Your task to perform on an android device: turn notification dots on Image 0: 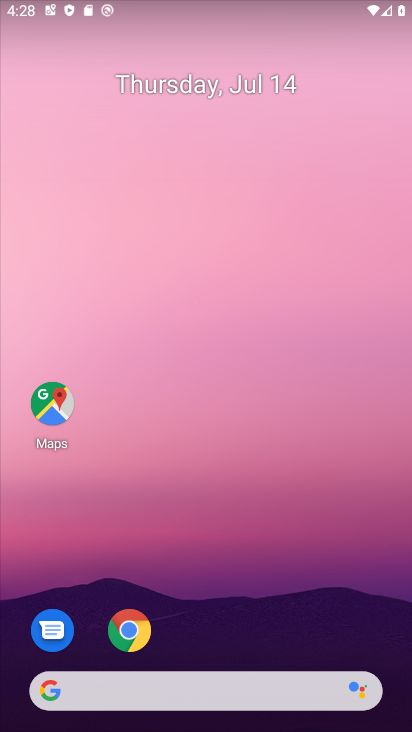
Step 0: drag from (217, 313) to (325, 35)
Your task to perform on an android device: turn notification dots on Image 1: 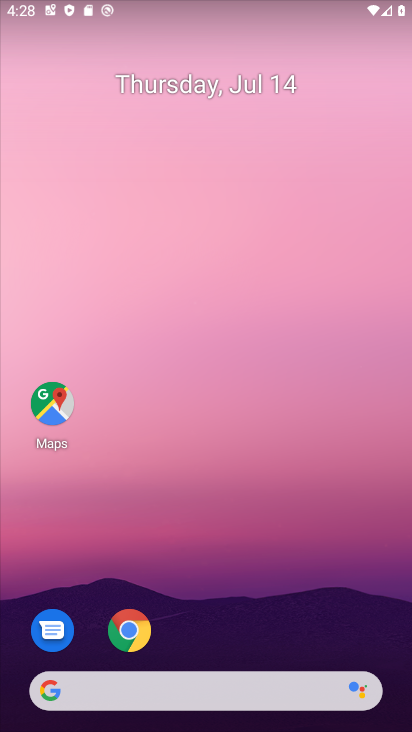
Step 1: drag from (211, 599) to (206, 539)
Your task to perform on an android device: turn notification dots on Image 2: 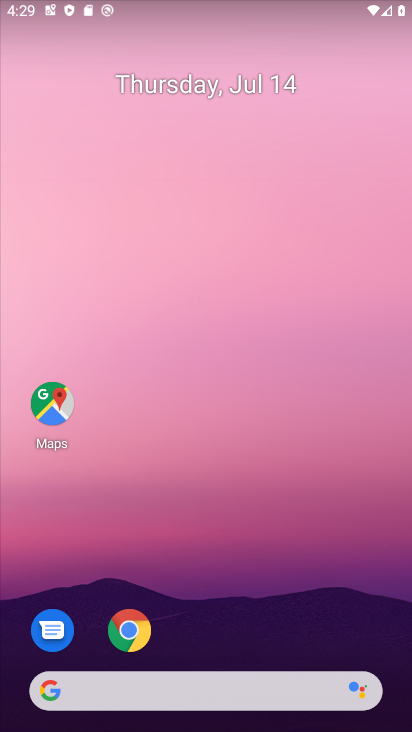
Step 2: drag from (202, 656) to (201, 81)
Your task to perform on an android device: turn notification dots on Image 3: 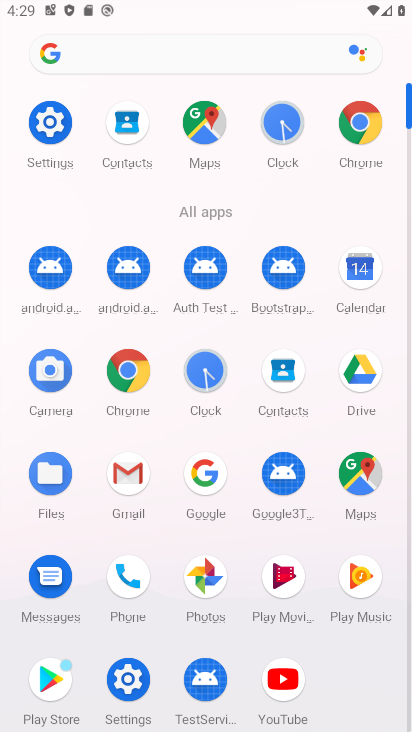
Step 3: click (53, 134)
Your task to perform on an android device: turn notification dots on Image 4: 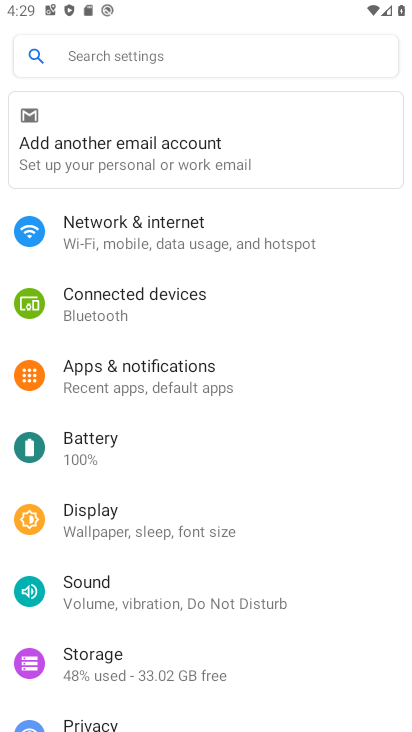
Step 4: click (146, 374)
Your task to perform on an android device: turn notification dots on Image 5: 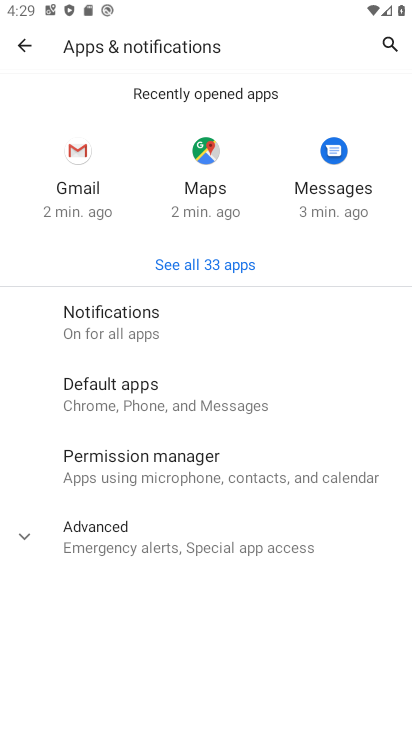
Step 5: click (160, 333)
Your task to perform on an android device: turn notification dots on Image 6: 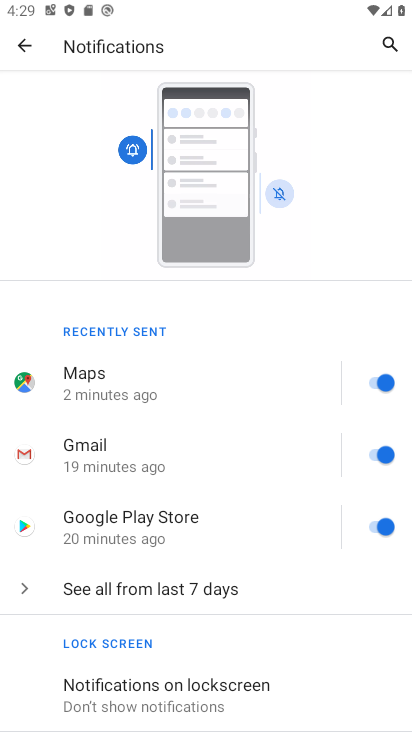
Step 6: drag from (217, 691) to (247, 222)
Your task to perform on an android device: turn notification dots on Image 7: 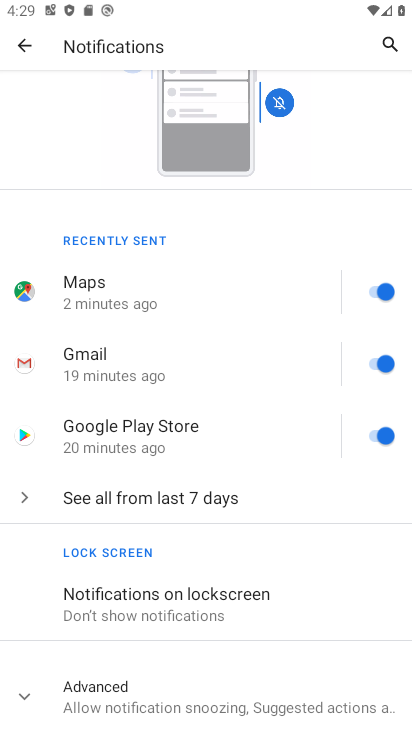
Step 7: drag from (245, 597) to (229, 157)
Your task to perform on an android device: turn notification dots on Image 8: 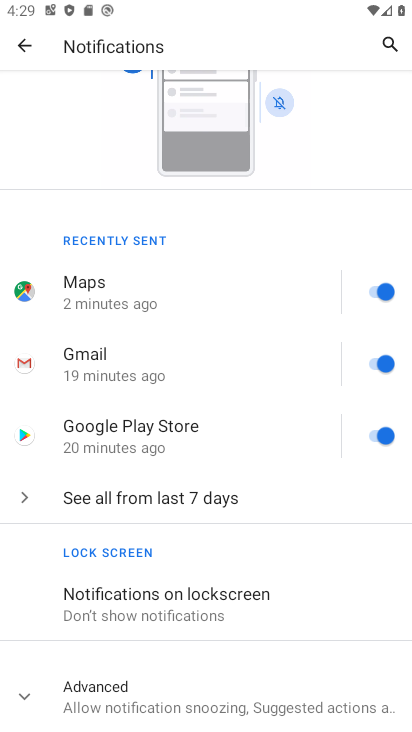
Step 8: click (123, 683)
Your task to perform on an android device: turn notification dots on Image 9: 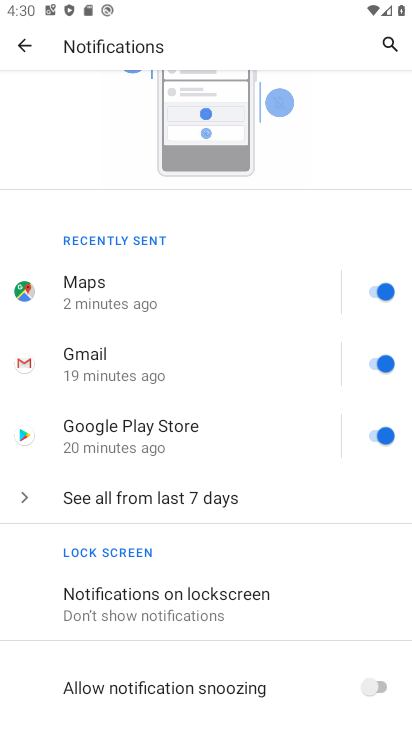
Step 9: task complete